Your task to perform on an android device: Open the Play Movies app and select the watchlist tab. Image 0: 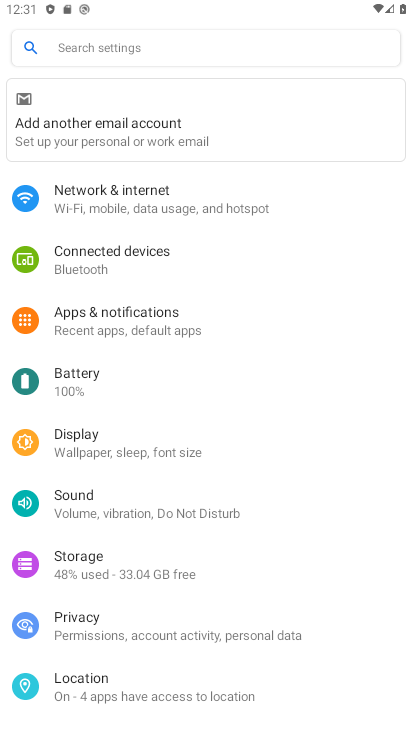
Step 0: press home button
Your task to perform on an android device: Open the Play Movies app and select the watchlist tab. Image 1: 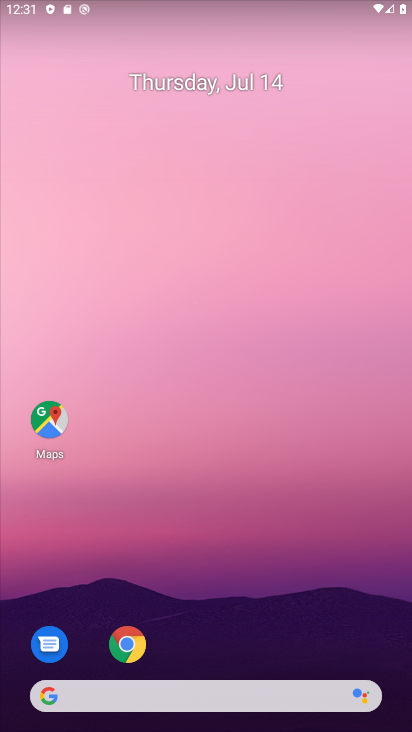
Step 1: drag from (287, 545) to (221, 114)
Your task to perform on an android device: Open the Play Movies app and select the watchlist tab. Image 2: 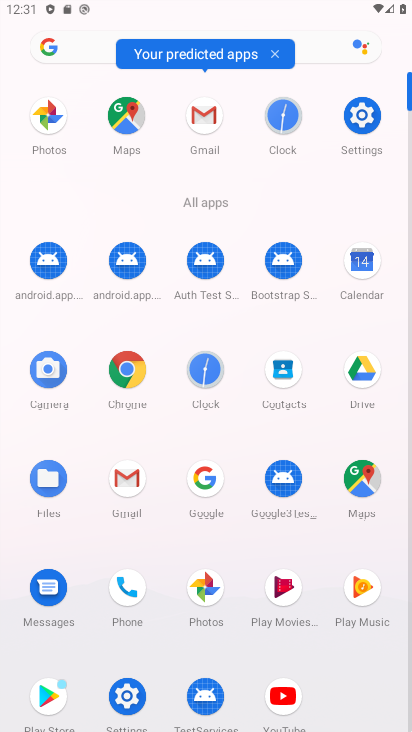
Step 2: click (289, 579)
Your task to perform on an android device: Open the Play Movies app and select the watchlist tab. Image 3: 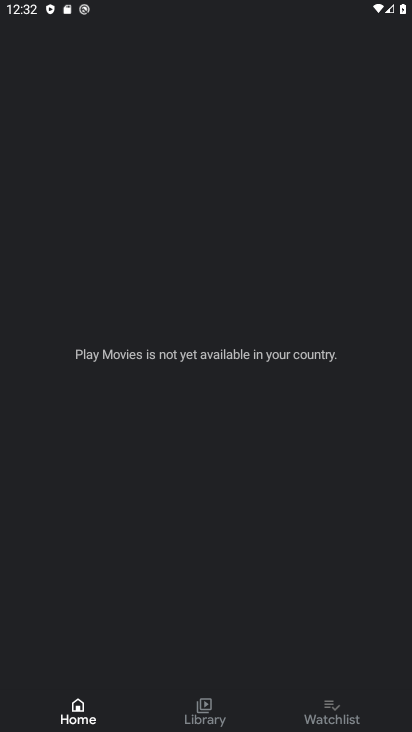
Step 3: click (346, 716)
Your task to perform on an android device: Open the Play Movies app and select the watchlist tab. Image 4: 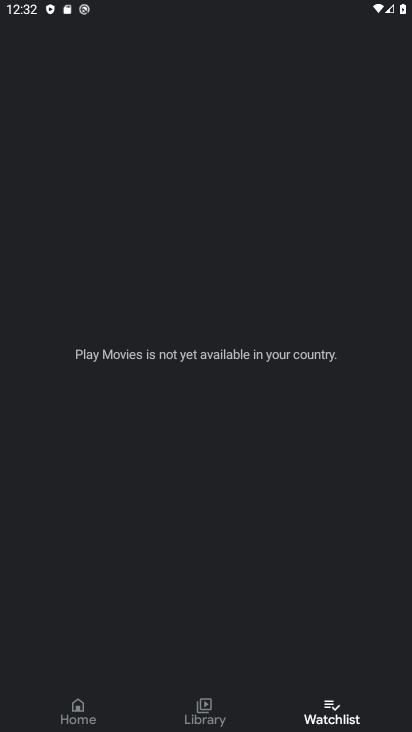
Step 4: task complete